Your task to perform on an android device: turn off javascript in the chrome app Image 0: 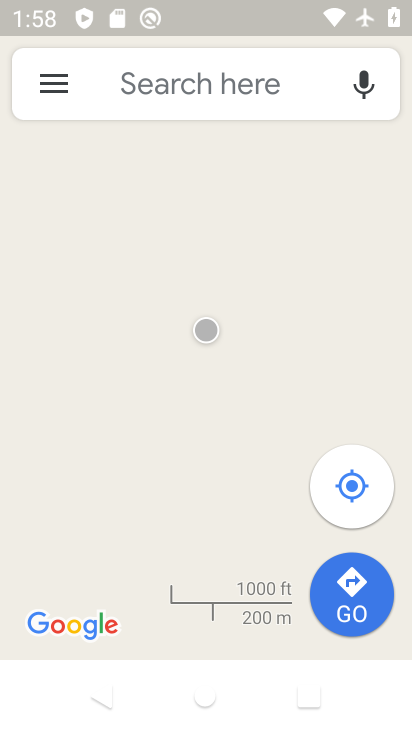
Step 0: press home button
Your task to perform on an android device: turn off javascript in the chrome app Image 1: 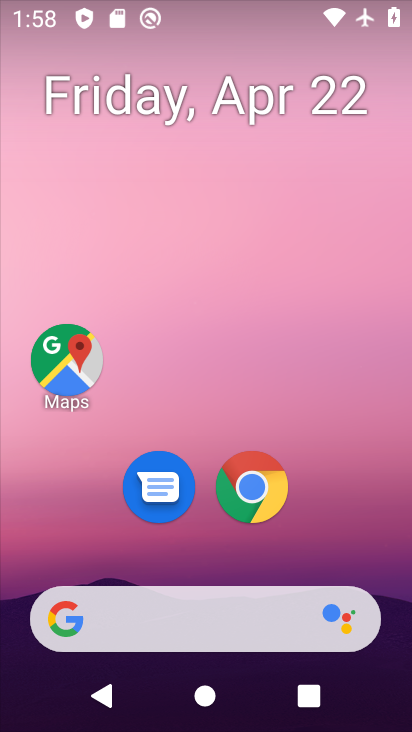
Step 1: drag from (145, 616) to (314, 40)
Your task to perform on an android device: turn off javascript in the chrome app Image 2: 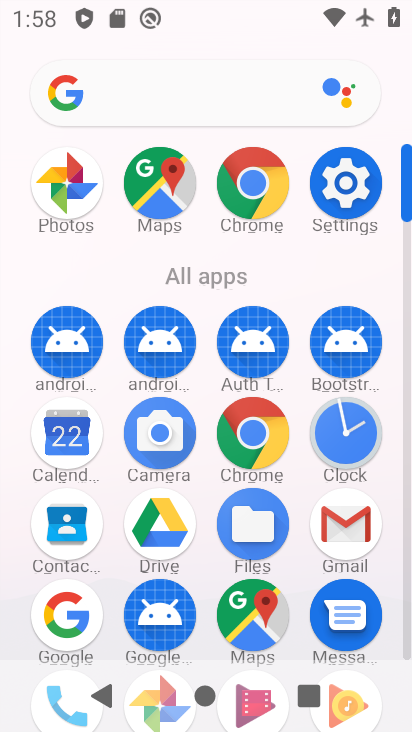
Step 2: click (263, 194)
Your task to perform on an android device: turn off javascript in the chrome app Image 3: 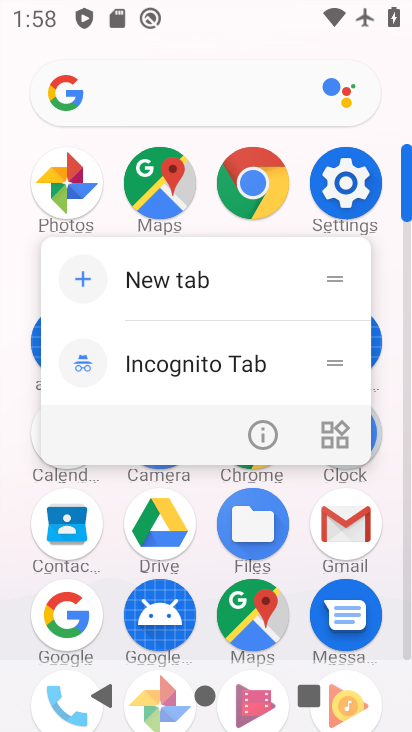
Step 3: click (265, 185)
Your task to perform on an android device: turn off javascript in the chrome app Image 4: 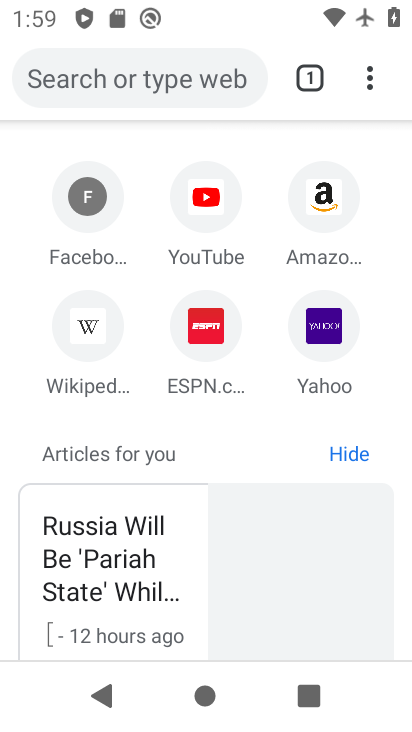
Step 4: drag from (368, 85) to (126, 549)
Your task to perform on an android device: turn off javascript in the chrome app Image 5: 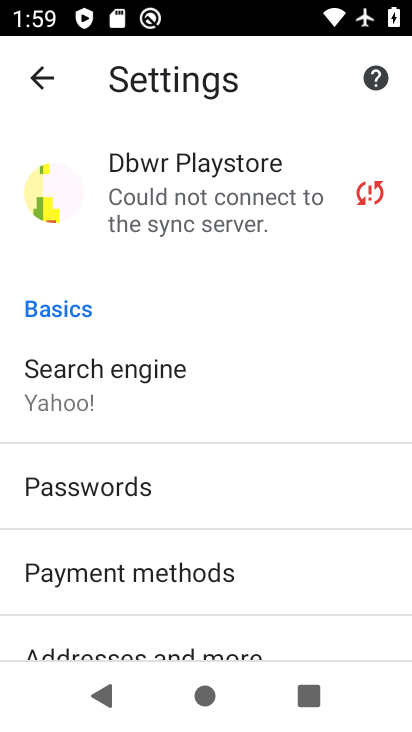
Step 5: drag from (130, 636) to (283, 227)
Your task to perform on an android device: turn off javascript in the chrome app Image 6: 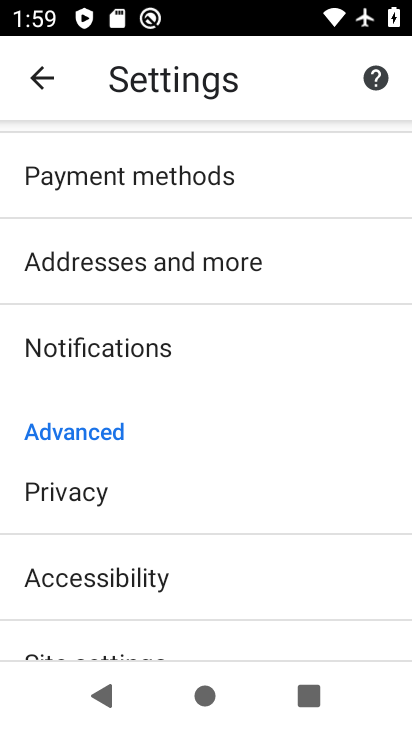
Step 6: drag from (177, 581) to (298, 185)
Your task to perform on an android device: turn off javascript in the chrome app Image 7: 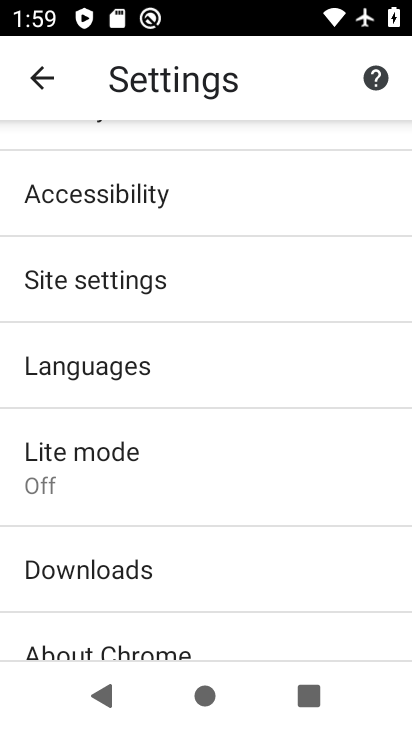
Step 7: click (128, 279)
Your task to perform on an android device: turn off javascript in the chrome app Image 8: 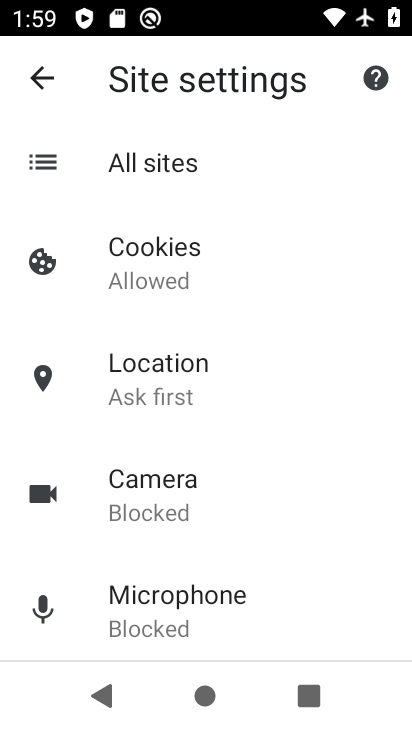
Step 8: drag from (213, 559) to (285, 156)
Your task to perform on an android device: turn off javascript in the chrome app Image 9: 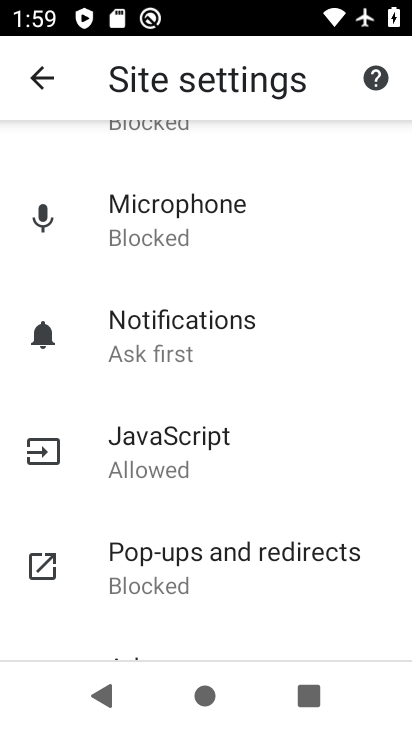
Step 9: click (161, 446)
Your task to perform on an android device: turn off javascript in the chrome app Image 10: 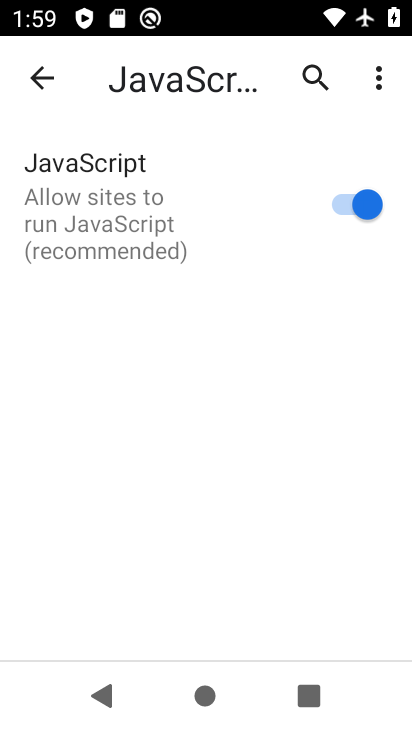
Step 10: click (350, 203)
Your task to perform on an android device: turn off javascript in the chrome app Image 11: 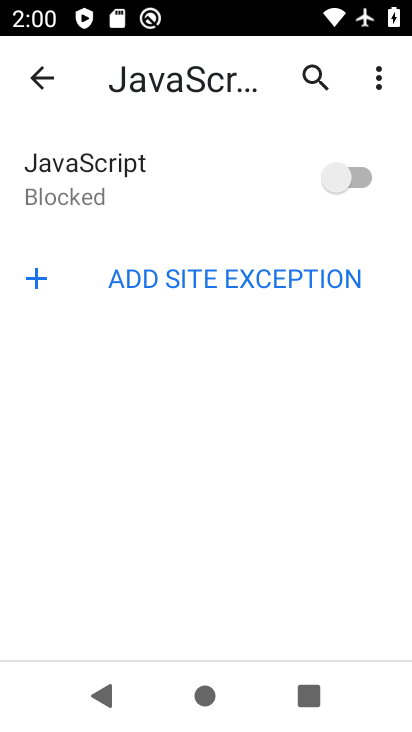
Step 11: task complete